Your task to perform on an android device: Is it going to rain today? Image 0: 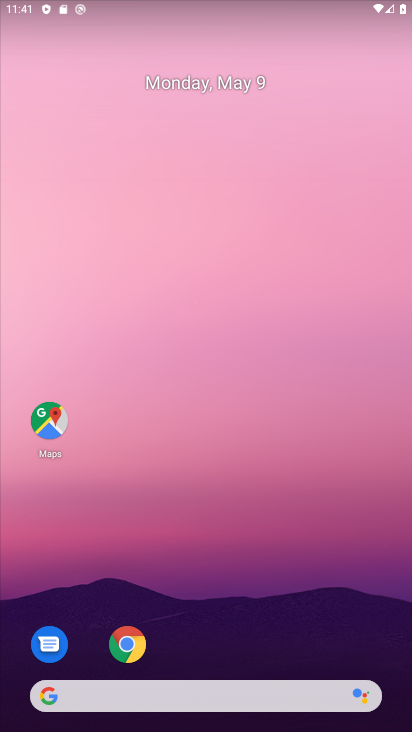
Step 0: click (164, 696)
Your task to perform on an android device: Is it going to rain today? Image 1: 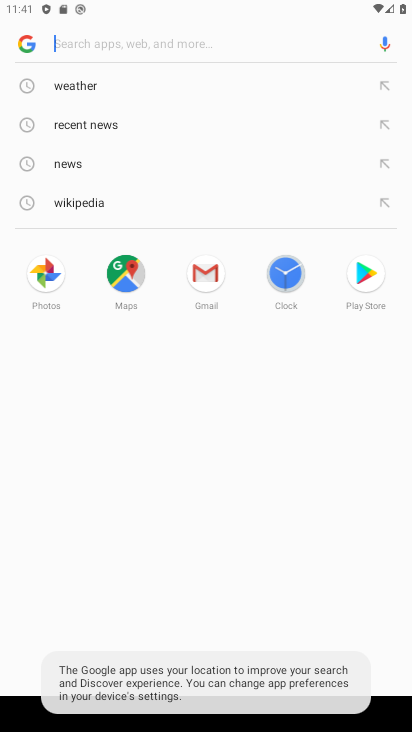
Step 1: click (89, 89)
Your task to perform on an android device: Is it going to rain today? Image 2: 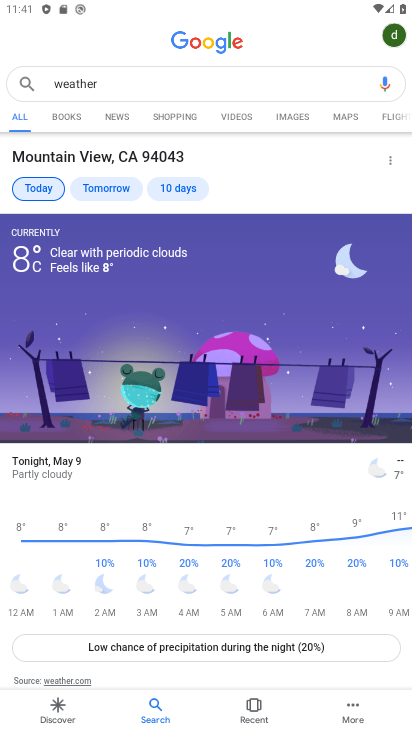
Step 2: task complete